Your task to perform on an android device: snooze an email in the gmail app Image 0: 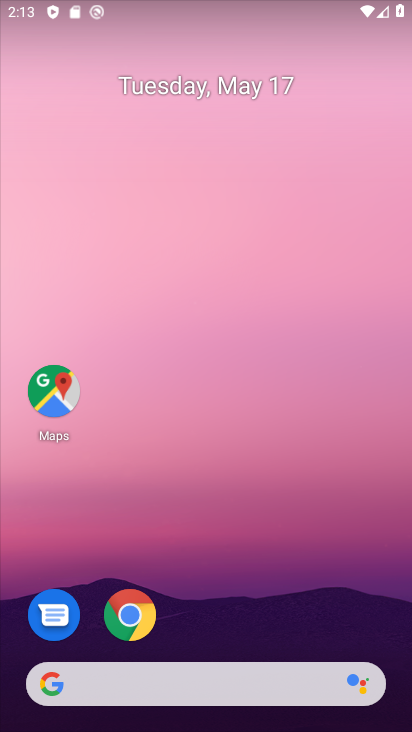
Step 0: drag from (214, 725) to (214, 144)
Your task to perform on an android device: snooze an email in the gmail app Image 1: 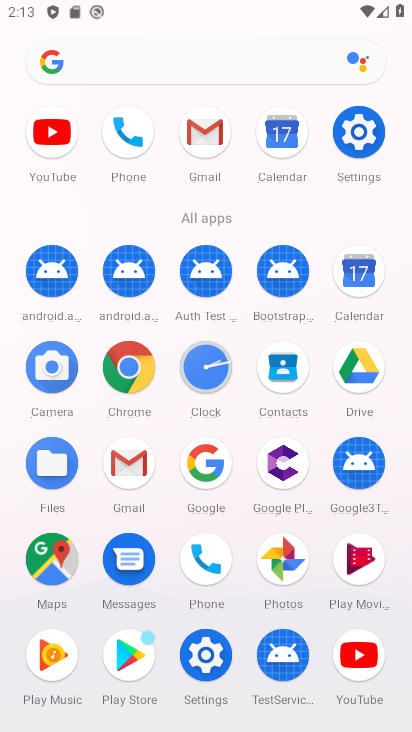
Step 1: click (123, 462)
Your task to perform on an android device: snooze an email in the gmail app Image 2: 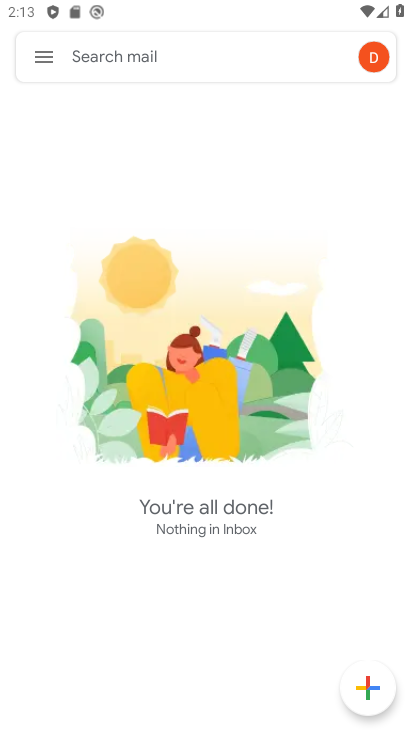
Step 2: task complete